Your task to perform on an android device: Add energizer triple a to the cart on target.com Image 0: 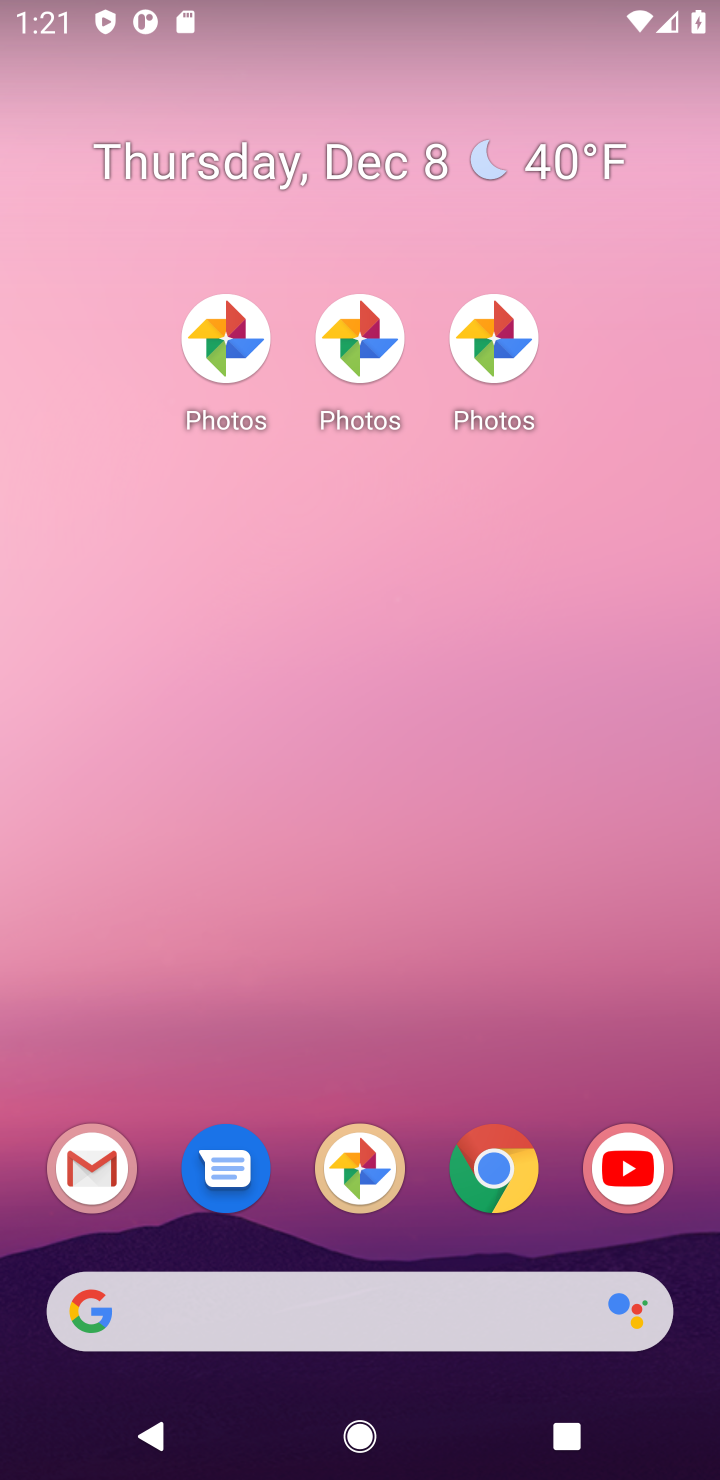
Step 0: drag from (321, 1314) to (333, 553)
Your task to perform on an android device: Add energizer triple a to the cart on target.com Image 1: 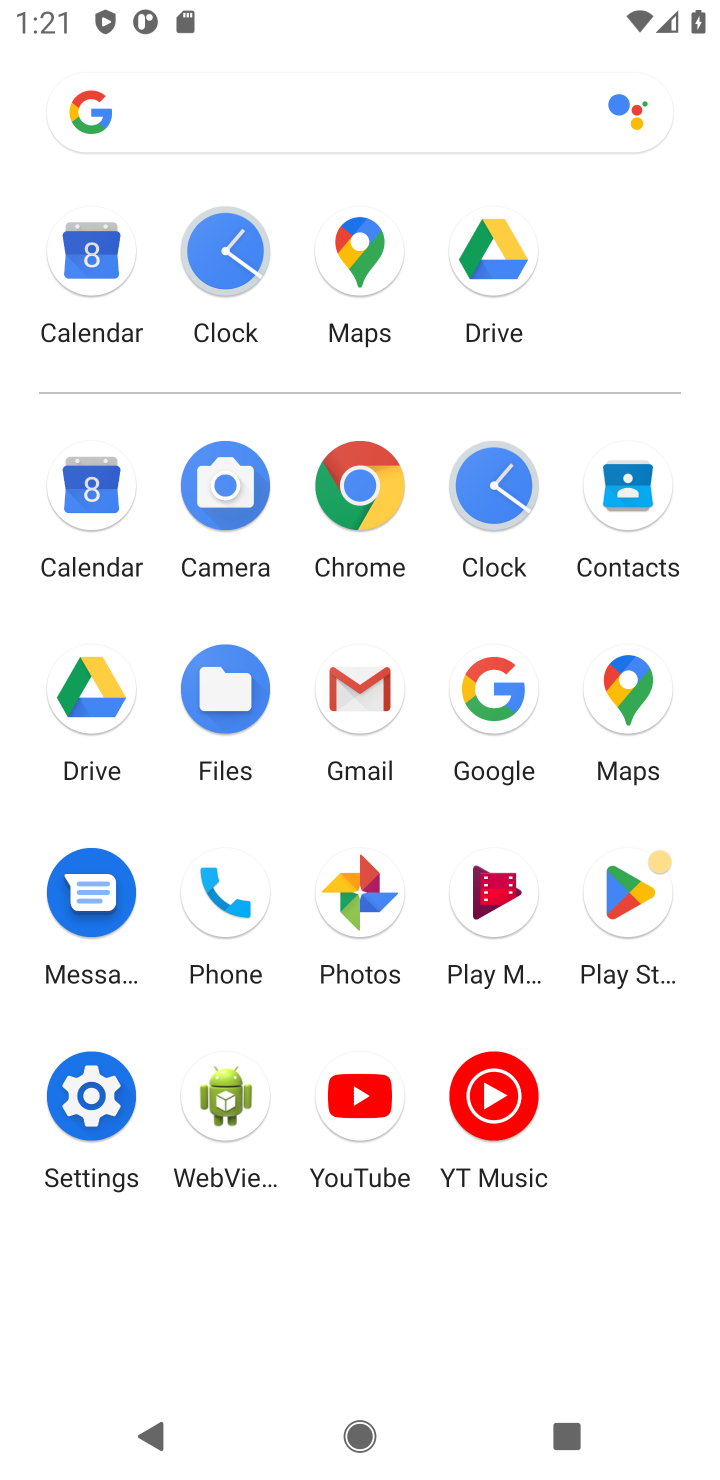
Step 1: click (488, 699)
Your task to perform on an android device: Add energizer triple a to the cart on target.com Image 2: 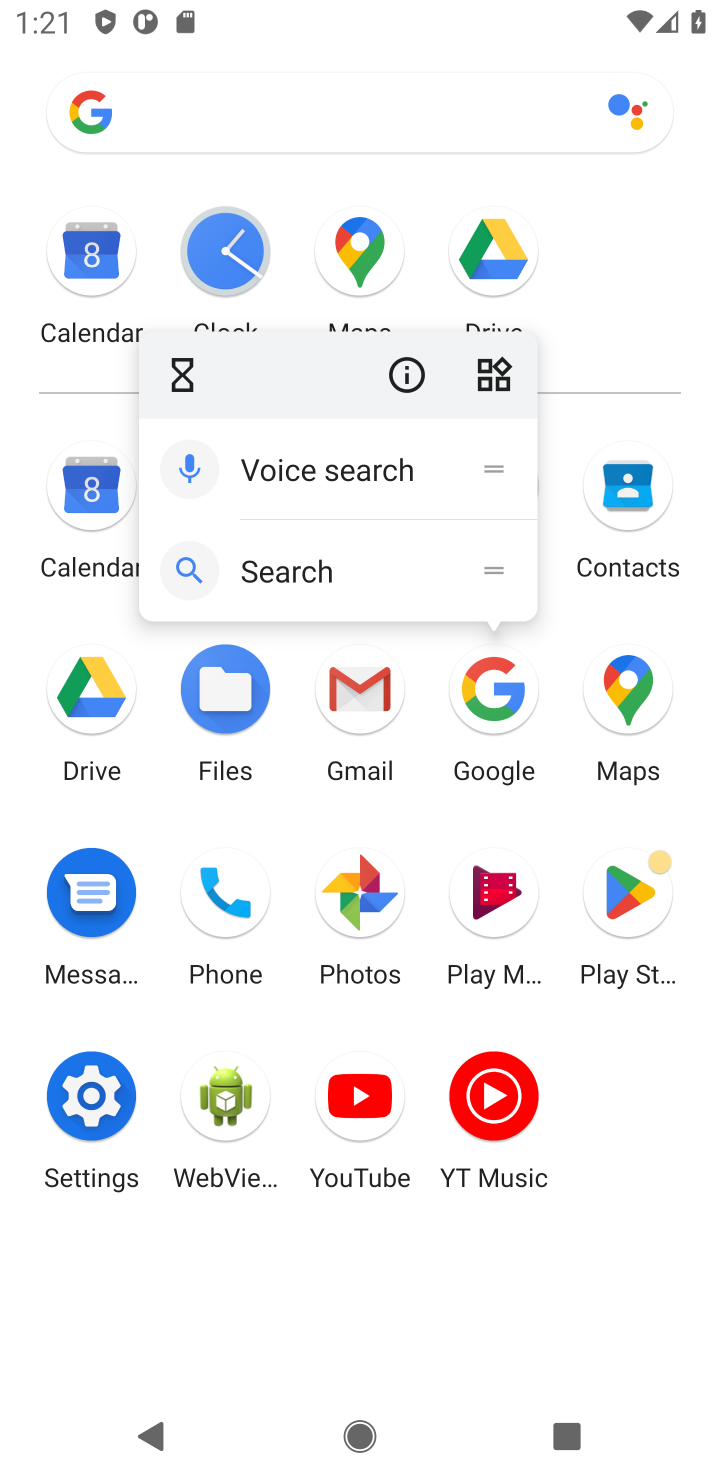
Step 2: click (483, 688)
Your task to perform on an android device: Add energizer triple a to the cart on target.com Image 3: 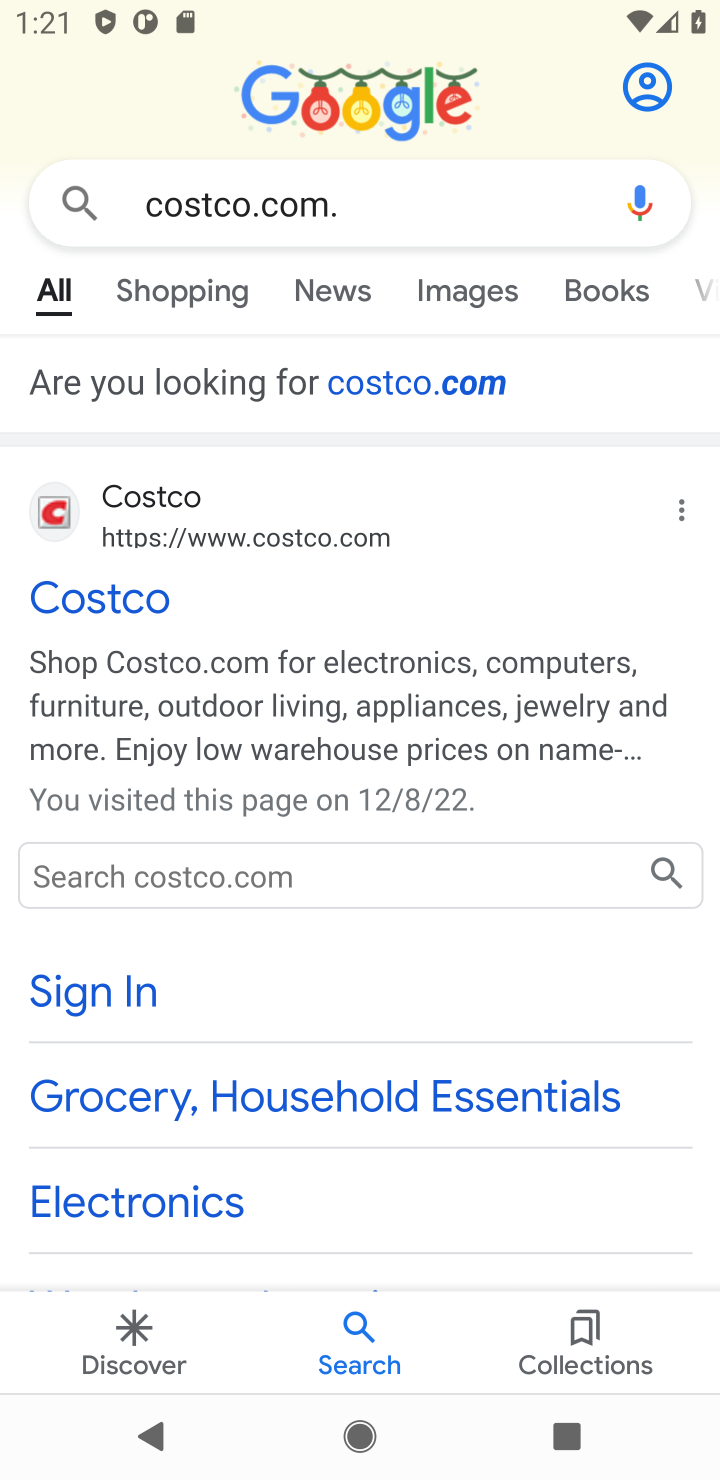
Step 3: click (278, 197)
Your task to perform on an android device: Add energizer triple a to the cart on target.com Image 4: 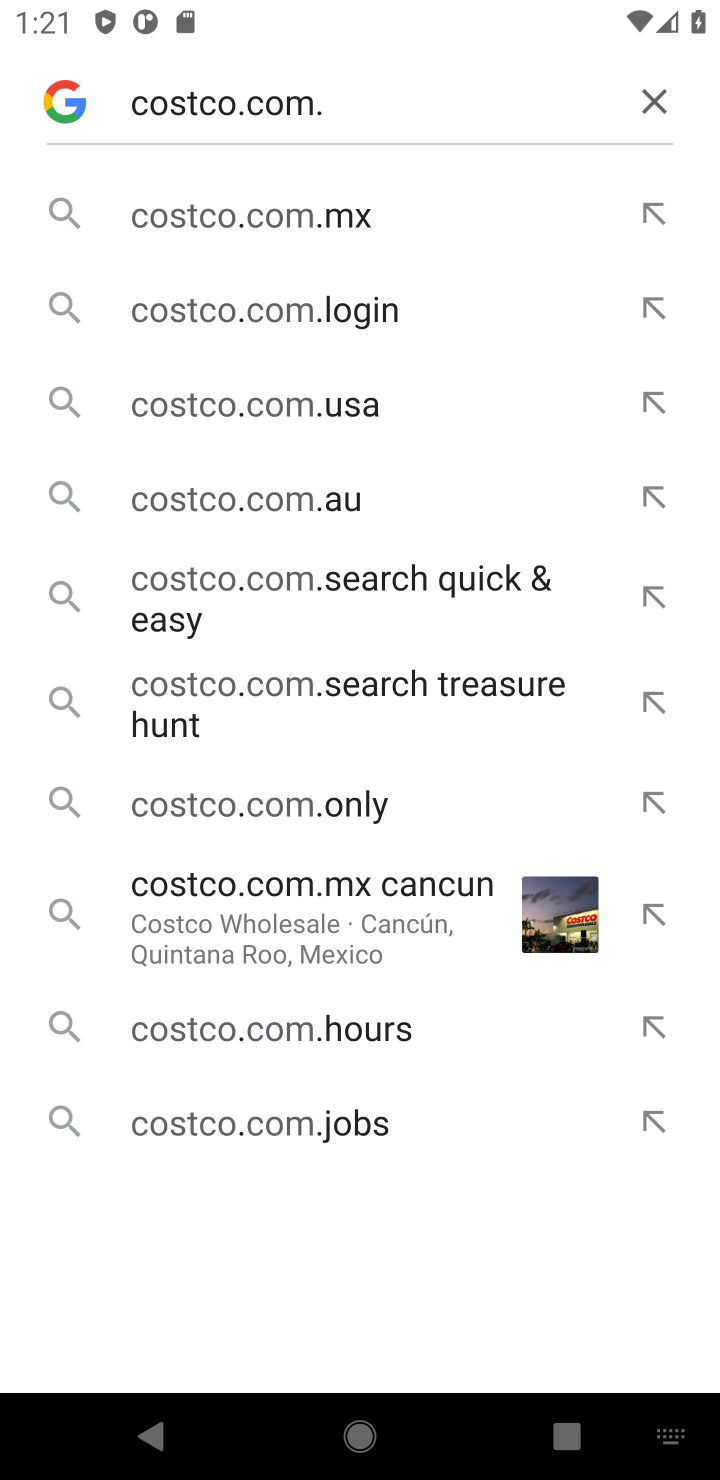
Step 4: click (665, 99)
Your task to perform on an android device: Add energizer triple a to the cart on target.com Image 5: 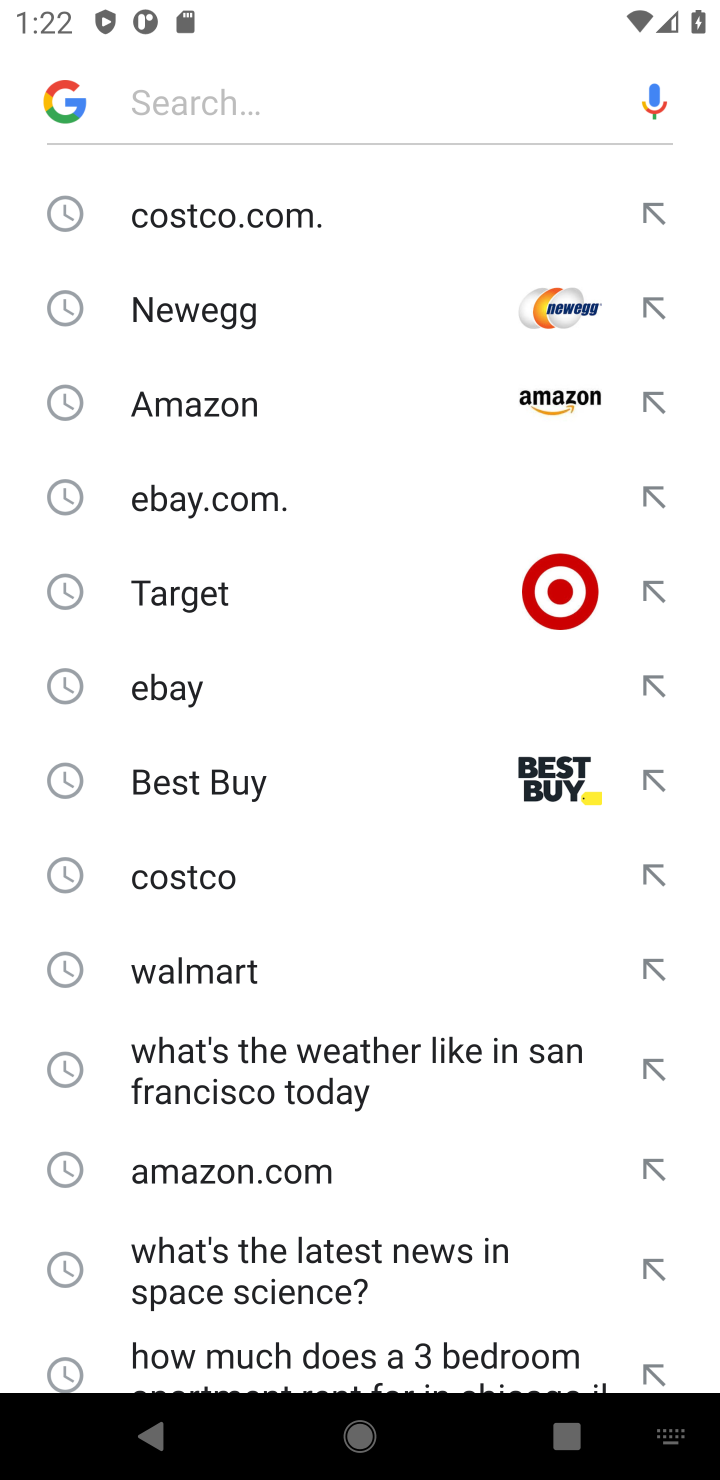
Step 5: click (560, 592)
Your task to perform on an android device: Add energizer triple a to the cart on target.com Image 6: 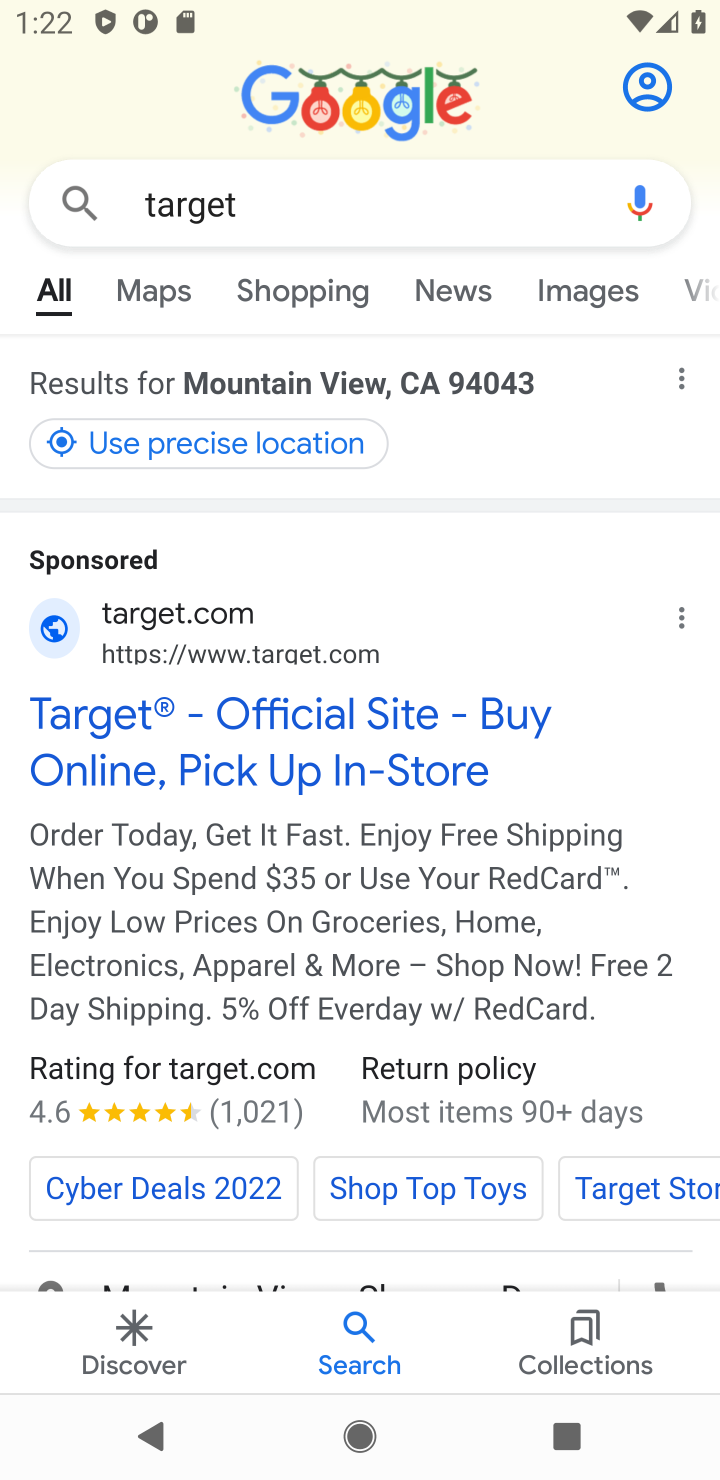
Step 6: click (226, 715)
Your task to perform on an android device: Add energizer triple a to the cart on target.com Image 7: 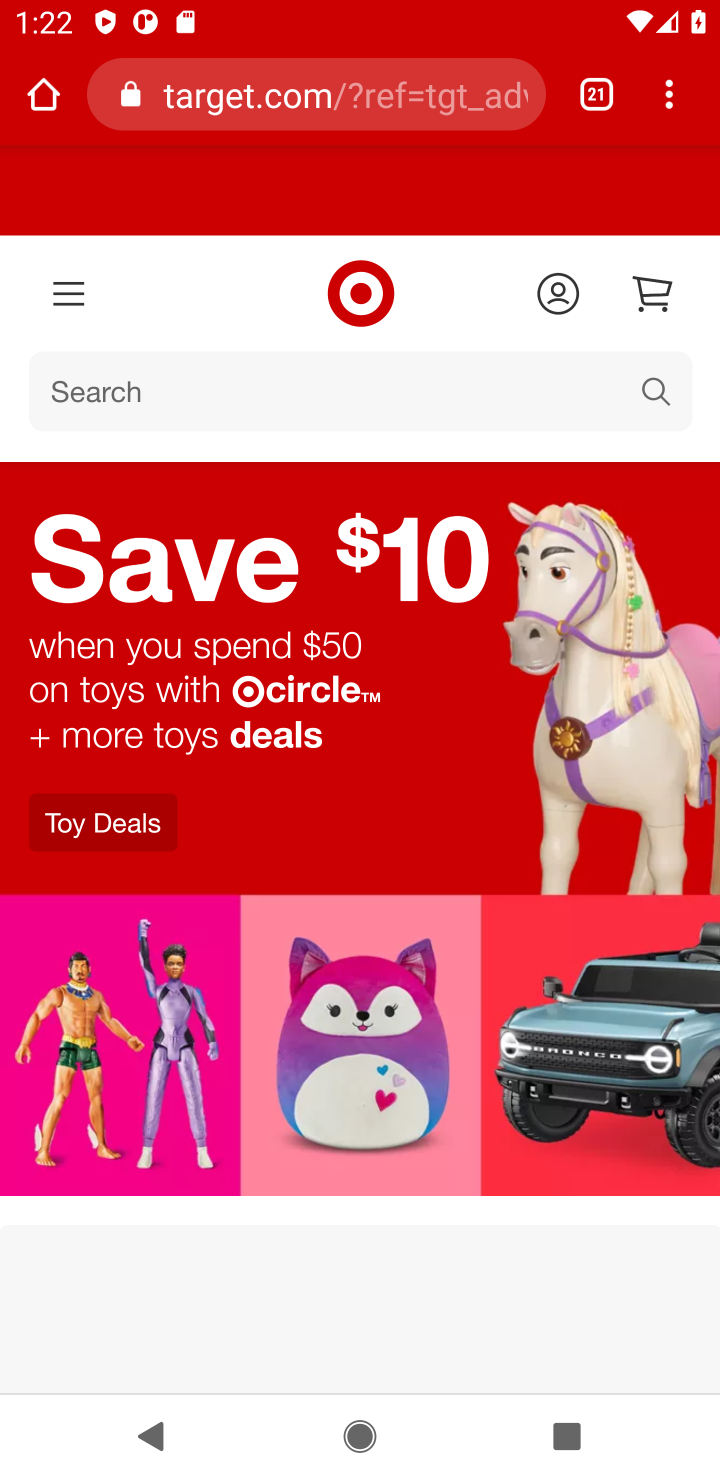
Step 7: click (405, 402)
Your task to perform on an android device: Add energizer triple a to the cart on target.com Image 8: 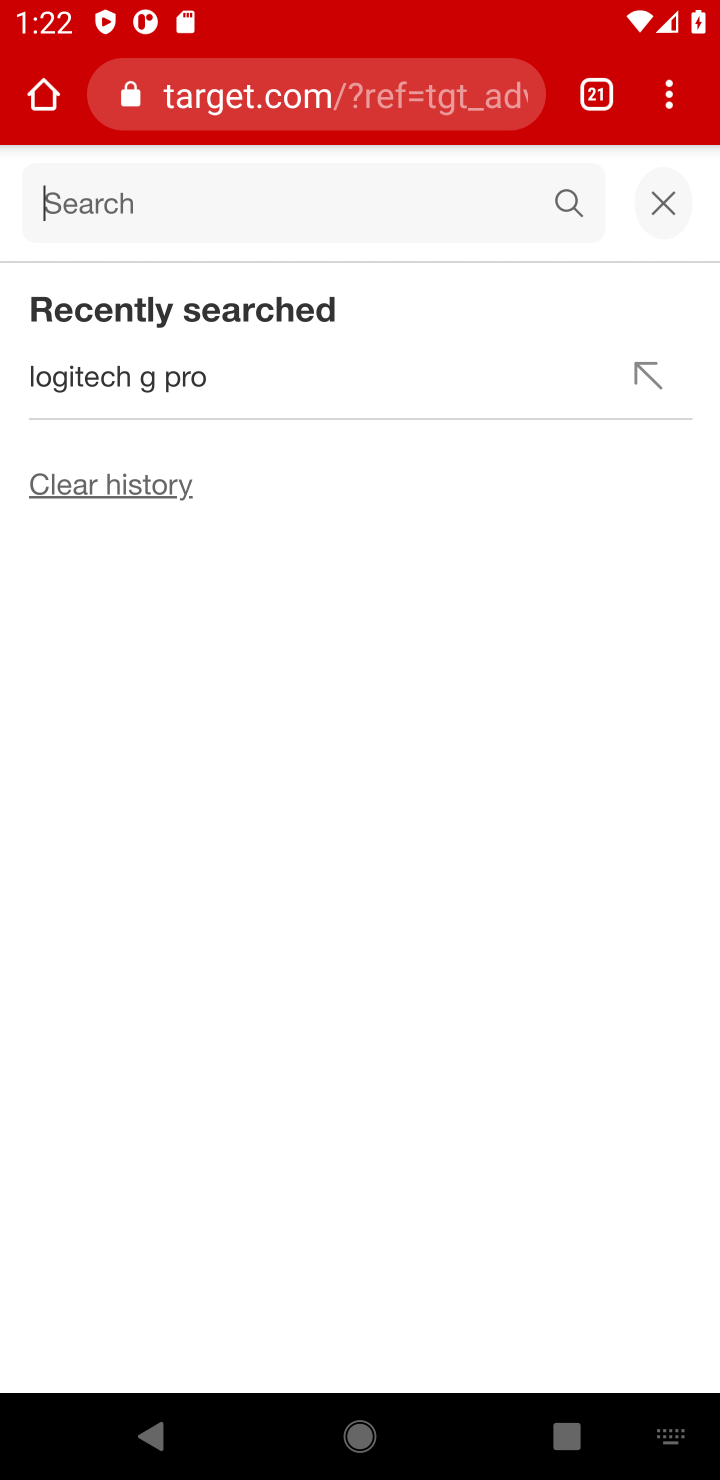
Step 8: type "energizer triple a"
Your task to perform on an android device: Add energizer triple a to the cart on target.com Image 9: 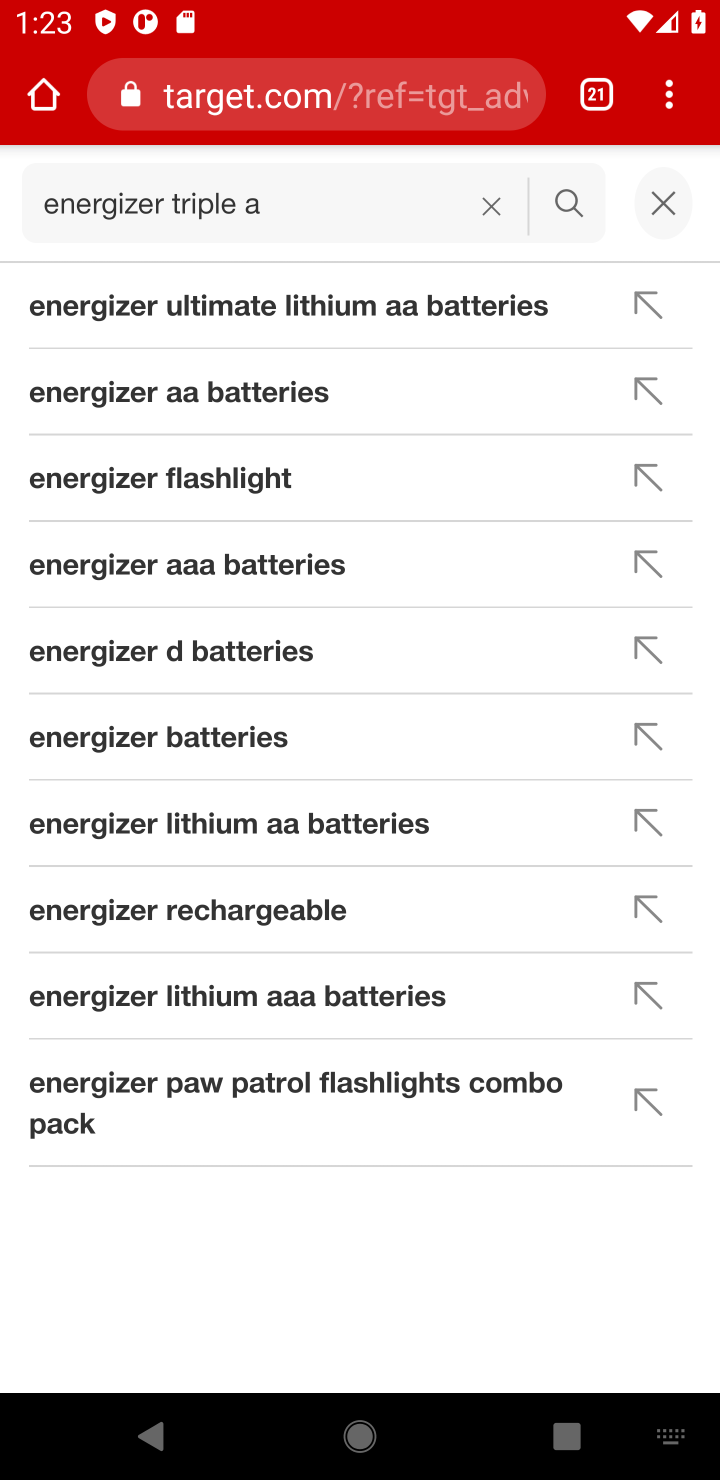
Step 9: click (573, 191)
Your task to perform on an android device: Add energizer triple a to the cart on target.com Image 10: 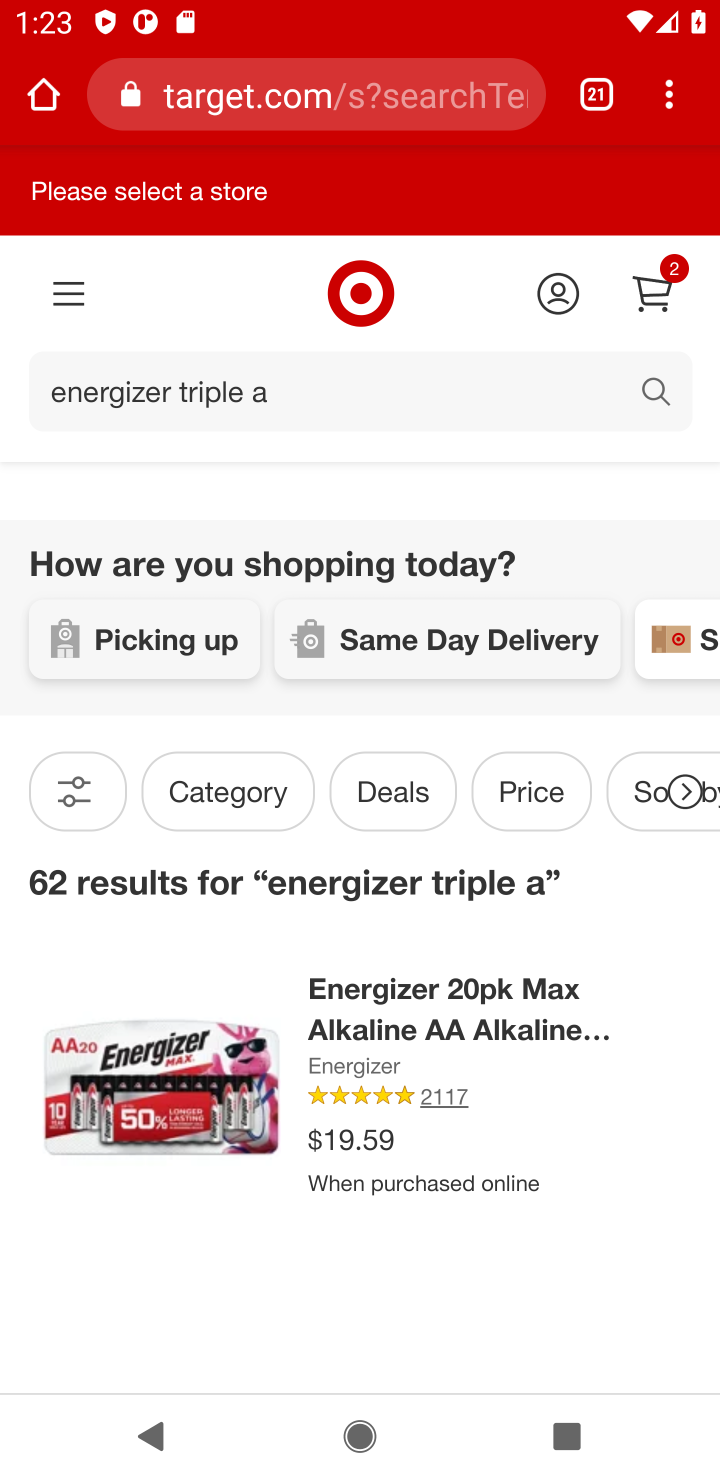
Step 10: click (342, 1018)
Your task to perform on an android device: Add energizer triple a to the cart on target.com Image 11: 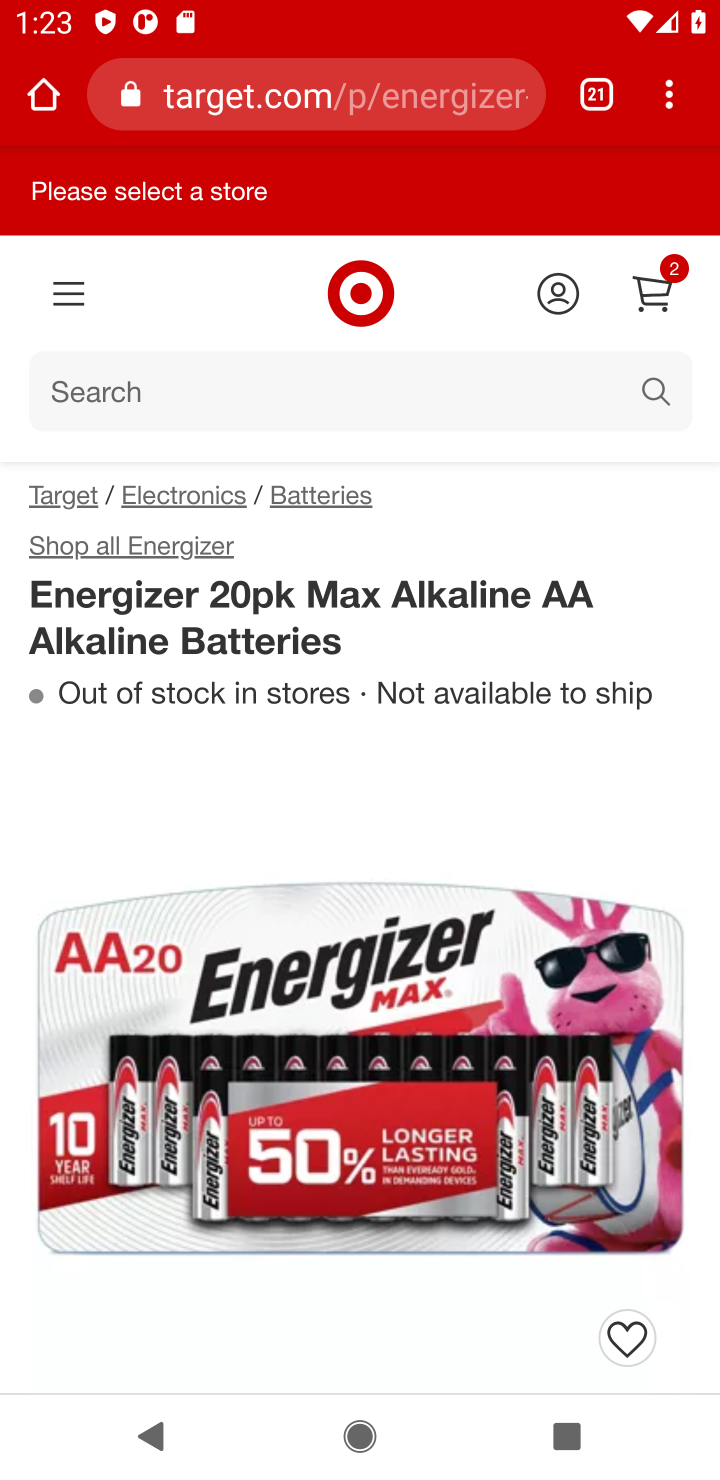
Step 11: drag from (410, 1108) to (375, 595)
Your task to perform on an android device: Add energizer triple a to the cart on target.com Image 12: 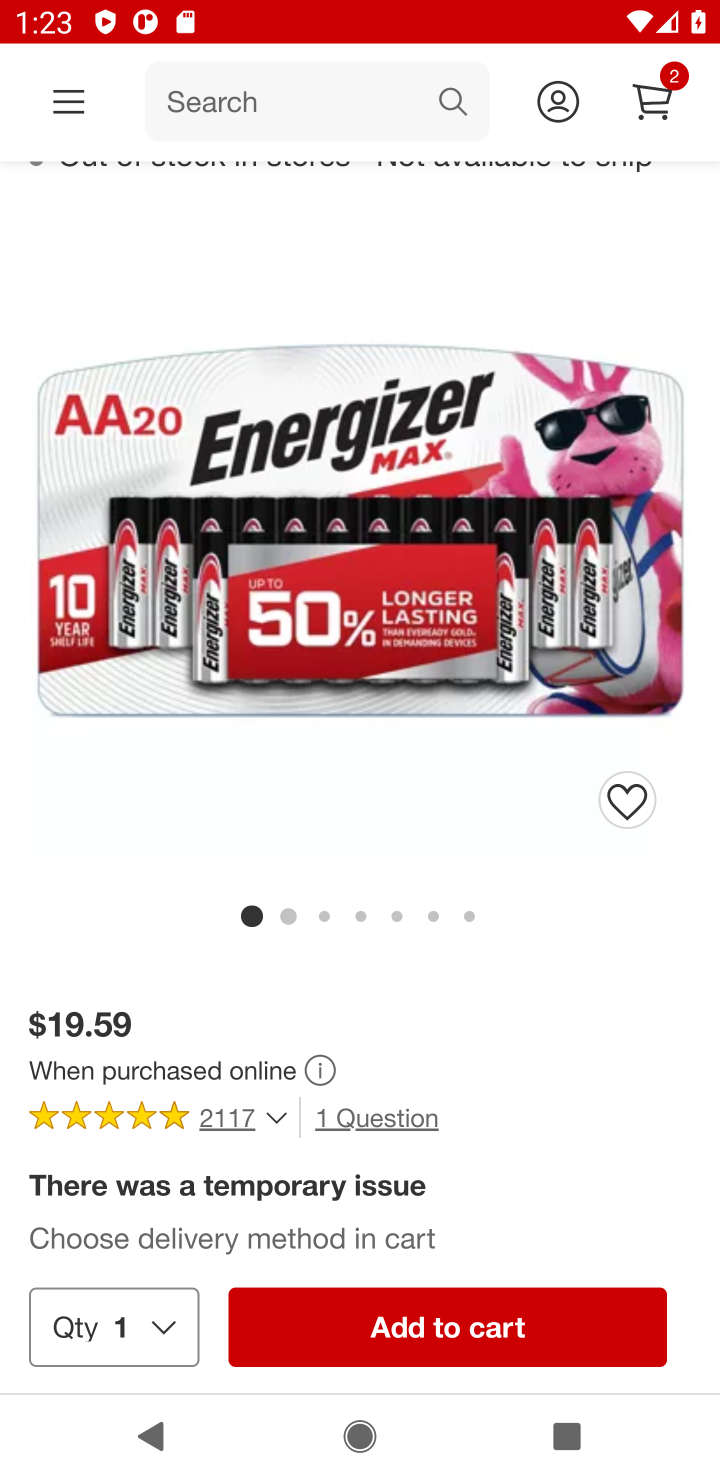
Step 12: drag from (443, 938) to (428, 645)
Your task to perform on an android device: Add energizer triple a to the cart on target.com Image 13: 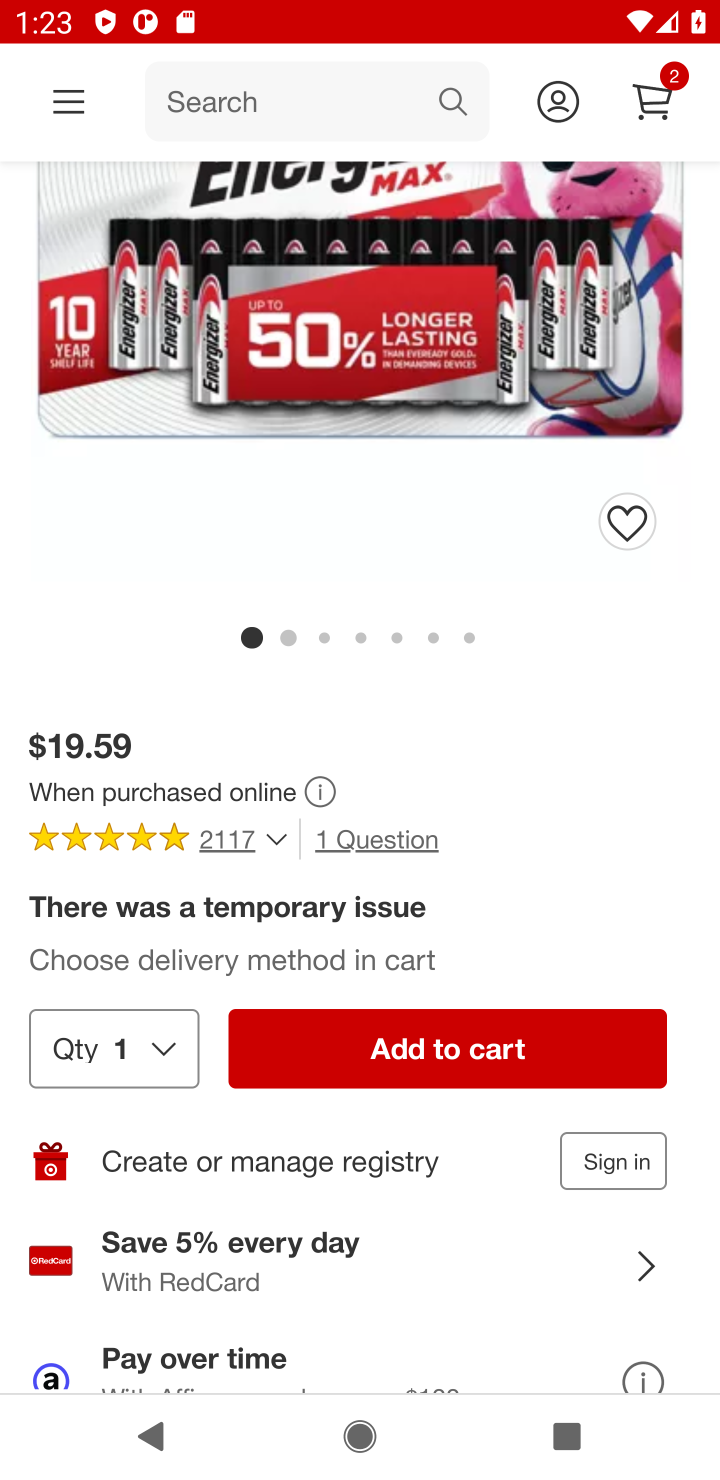
Step 13: click (388, 1054)
Your task to perform on an android device: Add energizer triple a to the cart on target.com Image 14: 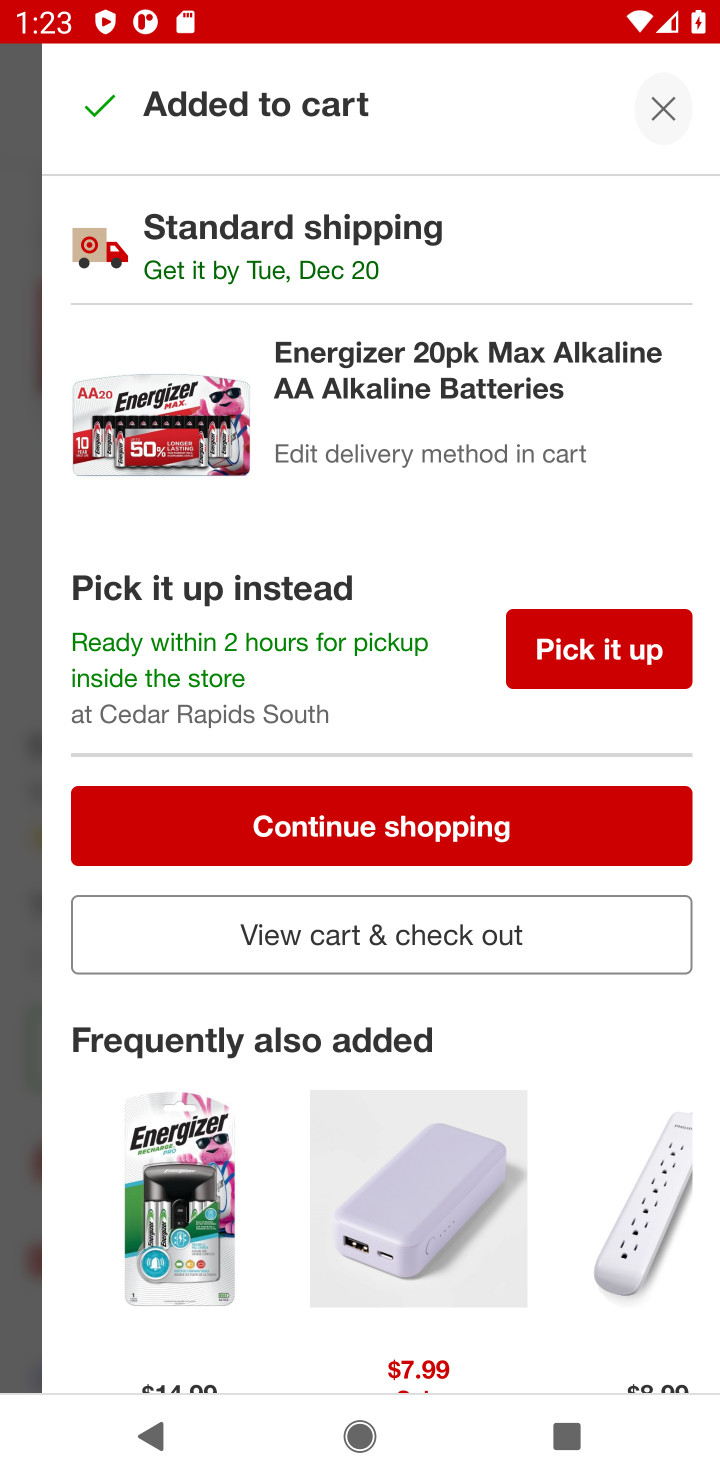
Step 14: click (650, 102)
Your task to perform on an android device: Add energizer triple a to the cart on target.com Image 15: 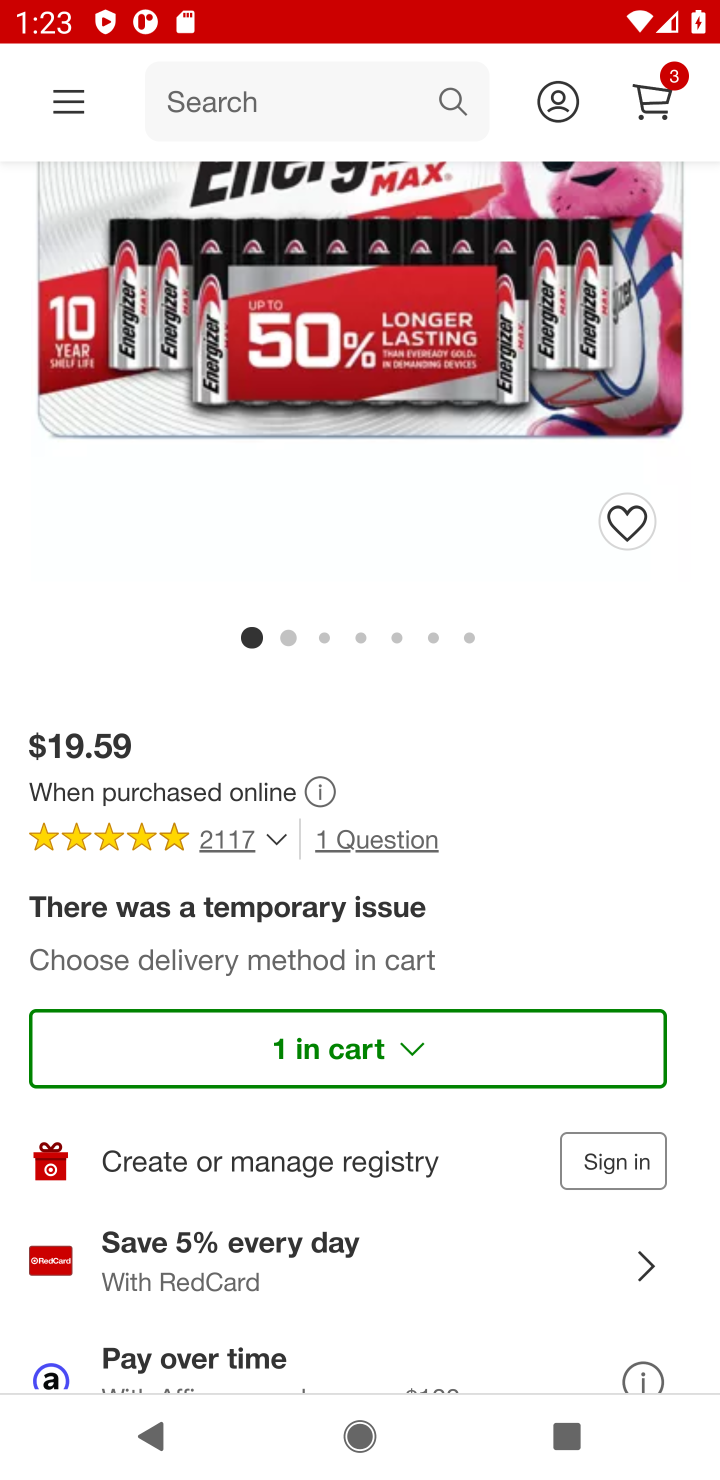
Step 15: task complete